Your task to perform on an android device: Open accessibility settings Image 0: 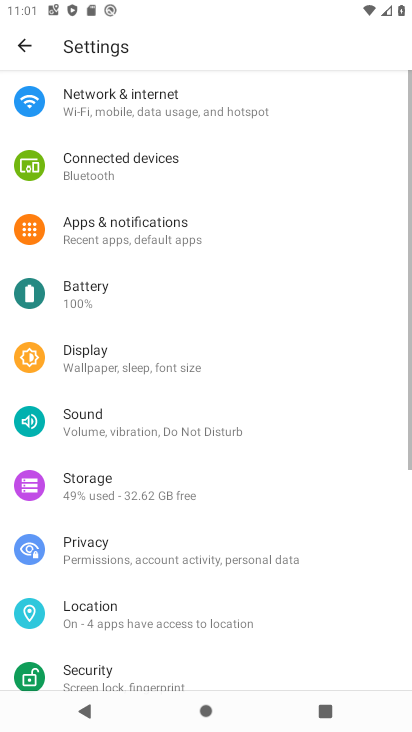
Step 0: drag from (157, 589) to (196, 134)
Your task to perform on an android device: Open accessibility settings Image 1: 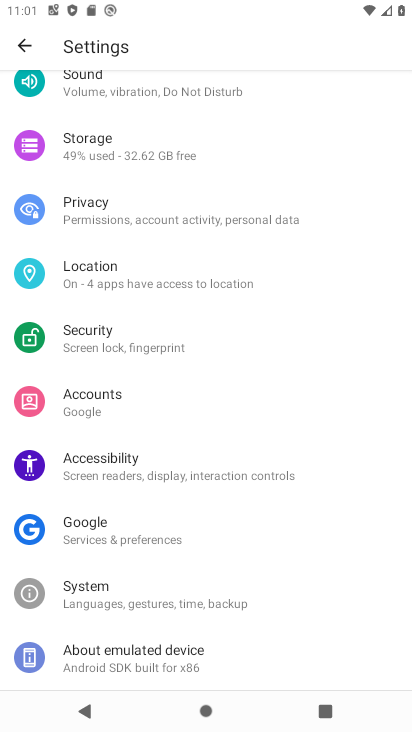
Step 1: click (154, 462)
Your task to perform on an android device: Open accessibility settings Image 2: 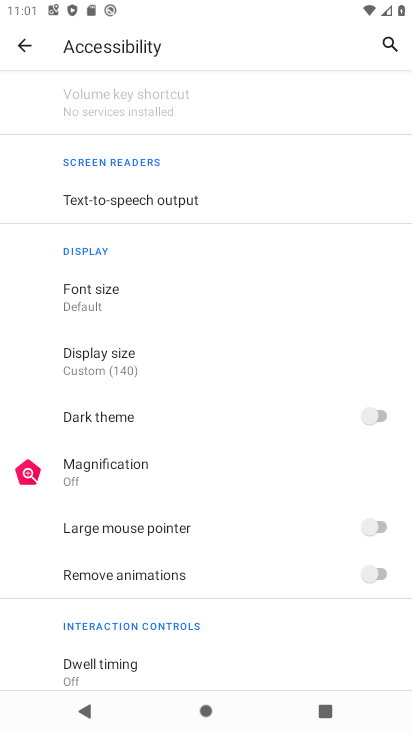
Step 2: task complete